Your task to perform on an android device: visit the assistant section in the google photos Image 0: 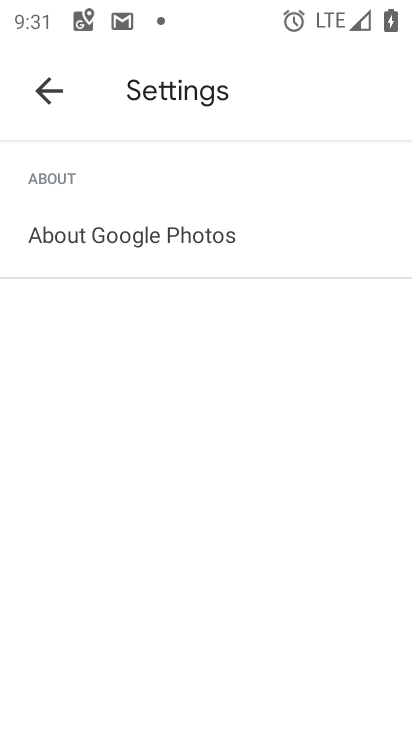
Step 0: press home button
Your task to perform on an android device: visit the assistant section in the google photos Image 1: 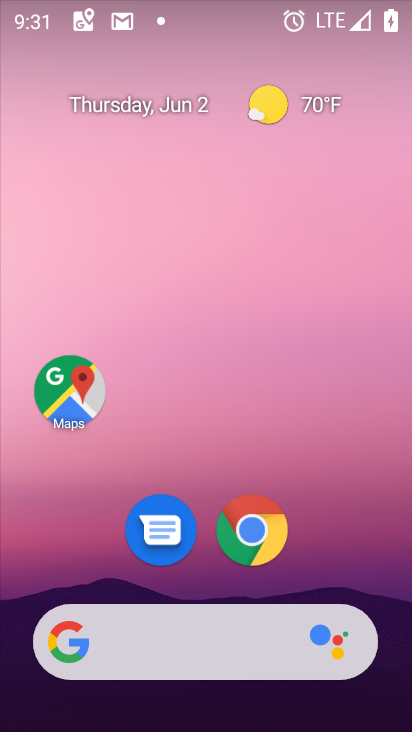
Step 1: drag from (89, 624) to (91, 293)
Your task to perform on an android device: visit the assistant section in the google photos Image 2: 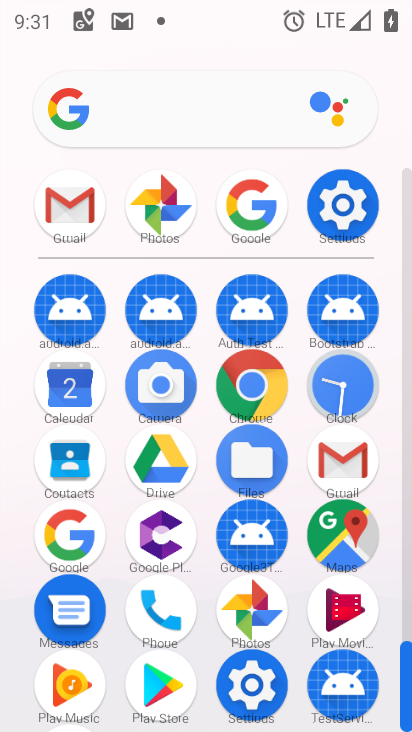
Step 2: click (256, 627)
Your task to perform on an android device: visit the assistant section in the google photos Image 3: 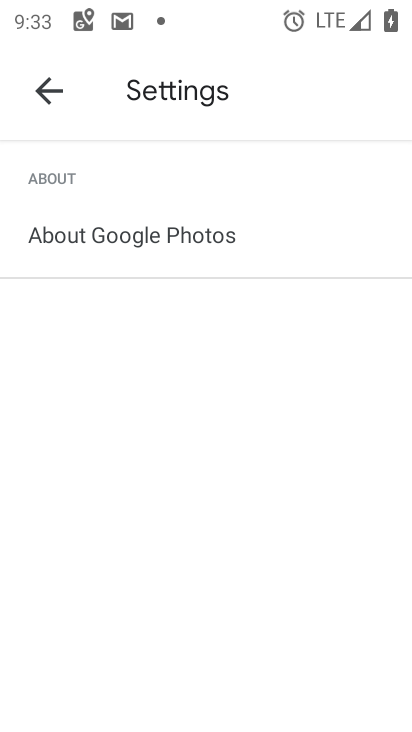
Step 3: click (59, 93)
Your task to perform on an android device: visit the assistant section in the google photos Image 4: 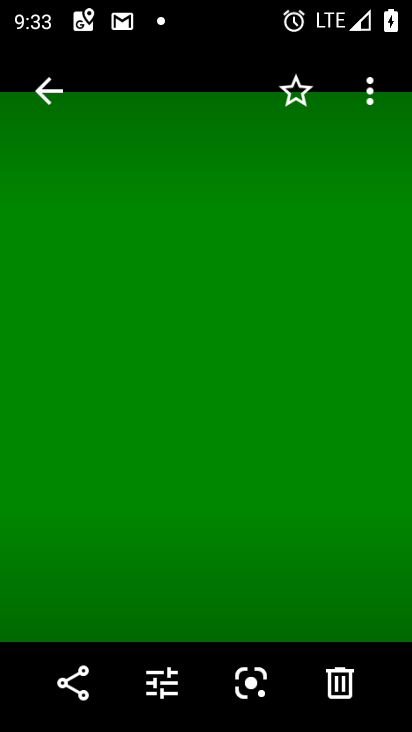
Step 4: click (42, 104)
Your task to perform on an android device: visit the assistant section in the google photos Image 5: 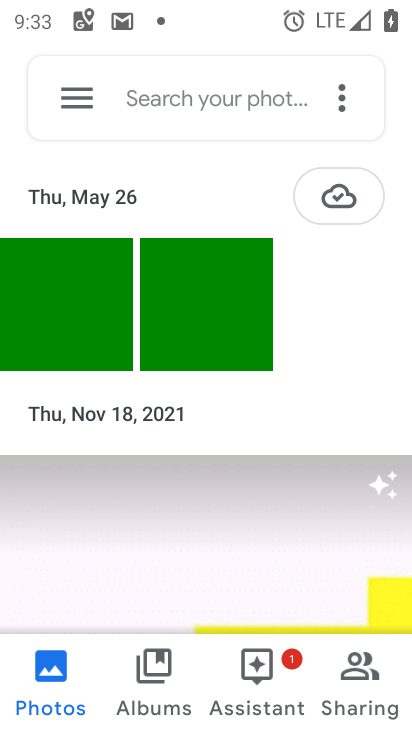
Step 5: click (270, 670)
Your task to perform on an android device: visit the assistant section in the google photos Image 6: 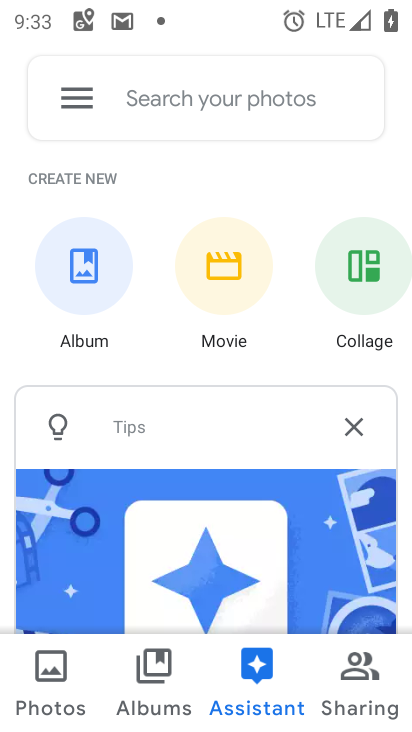
Step 6: task complete